Your task to perform on an android device: Search for "logitech g933" on amazon.com, select the first entry, and add it to the cart. Image 0: 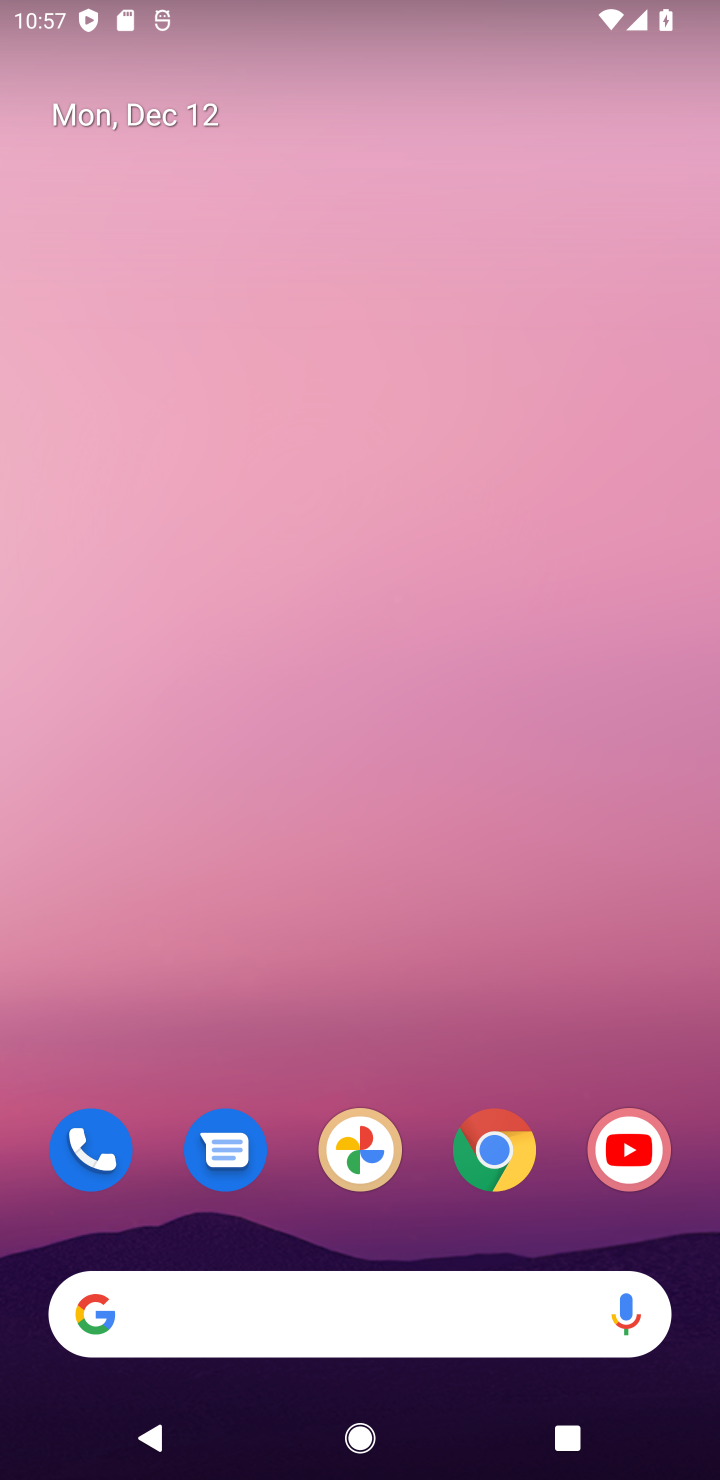
Step 0: click (496, 1163)
Your task to perform on an android device: Search for "logitech g933" on amazon.com, select the first entry, and add it to the cart. Image 1: 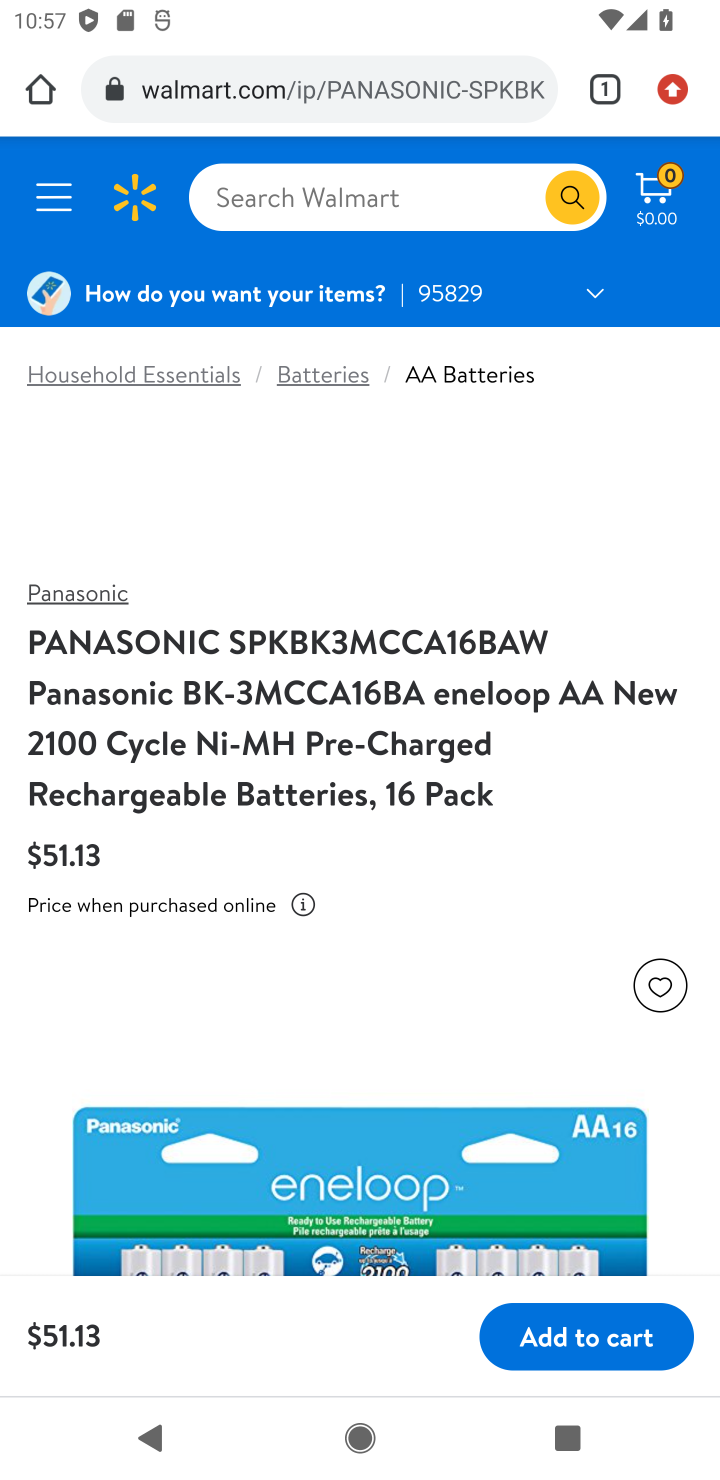
Step 1: click (258, 98)
Your task to perform on an android device: Search for "logitech g933" on amazon.com, select the first entry, and add it to the cart. Image 2: 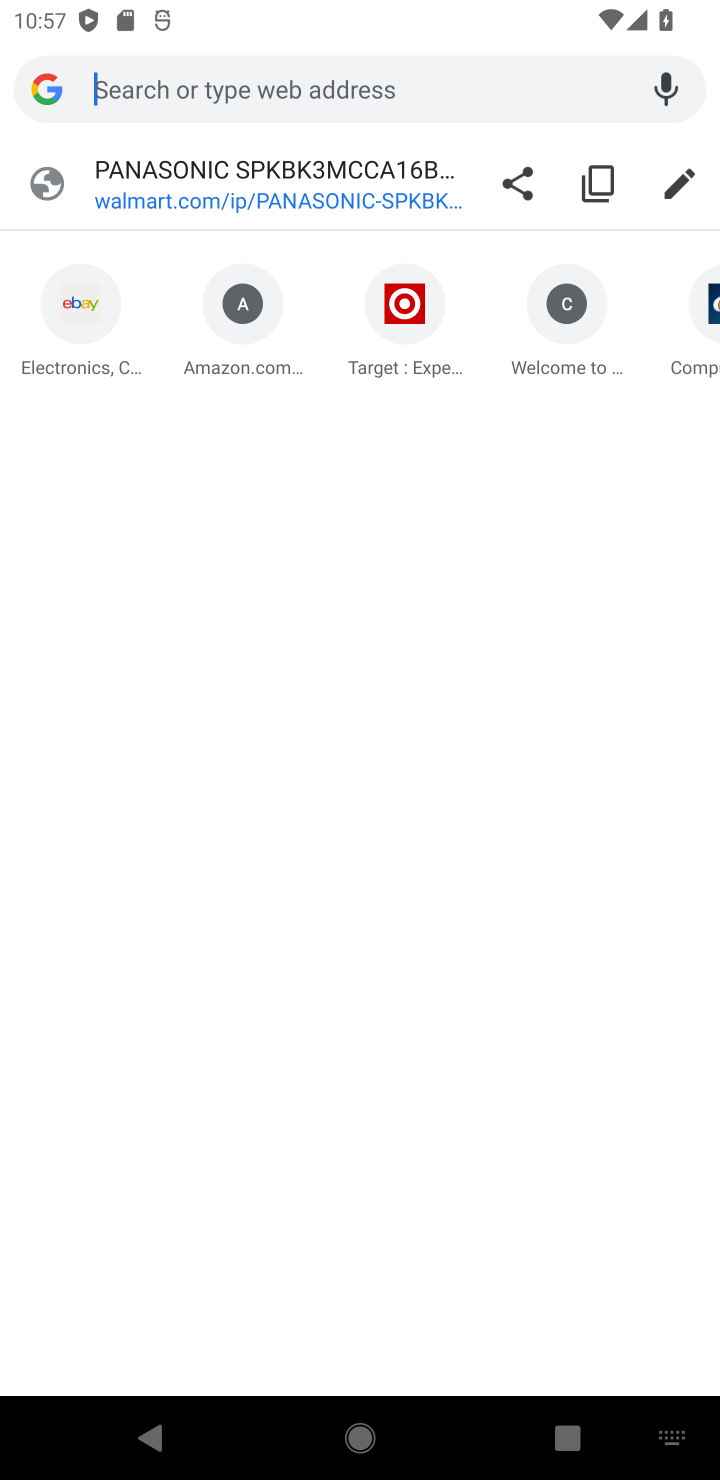
Step 2: click (232, 318)
Your task to perform on an android device: Search for "logitech g933" on amazon.com, select the first entry, and add it to the cart. Image 3: 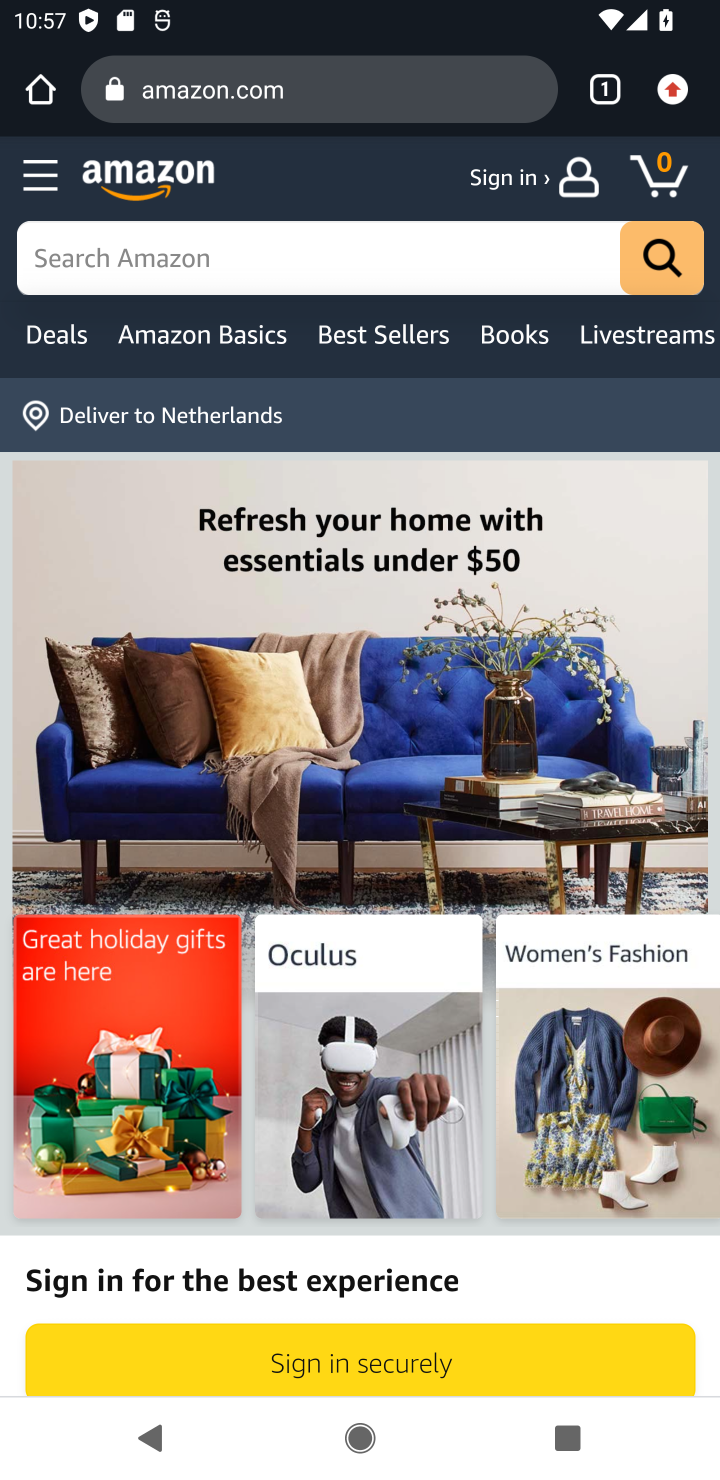
Step 3: click (85, 258)
Your task to perform on an android device: Search for "logitech g933" on amazon.com, select the first entry, and add it to the cart. Image 4: 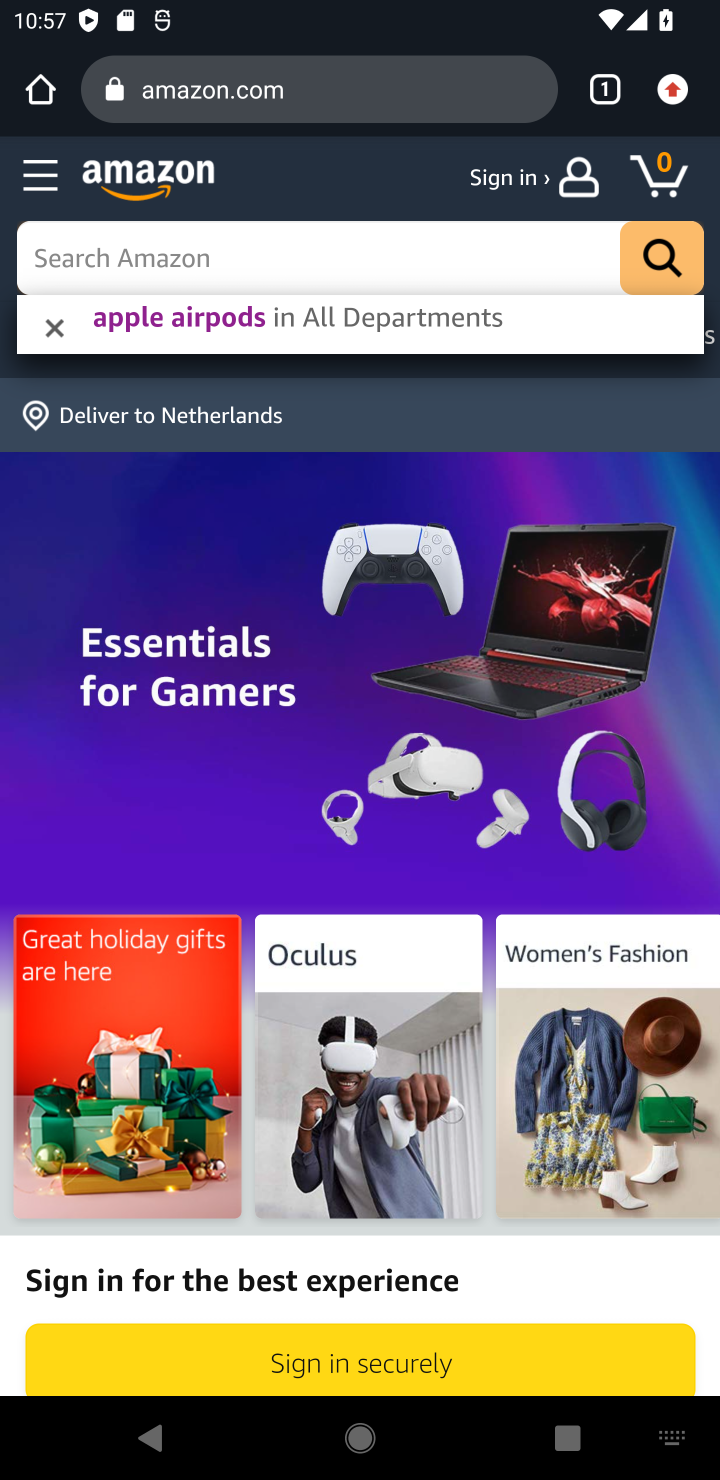
Step 4: type "logitech g933"
Your task to perform on an android device: Search for "logitech g933" on amazon.com, select the first entry, and add it to the cart. Image 5: 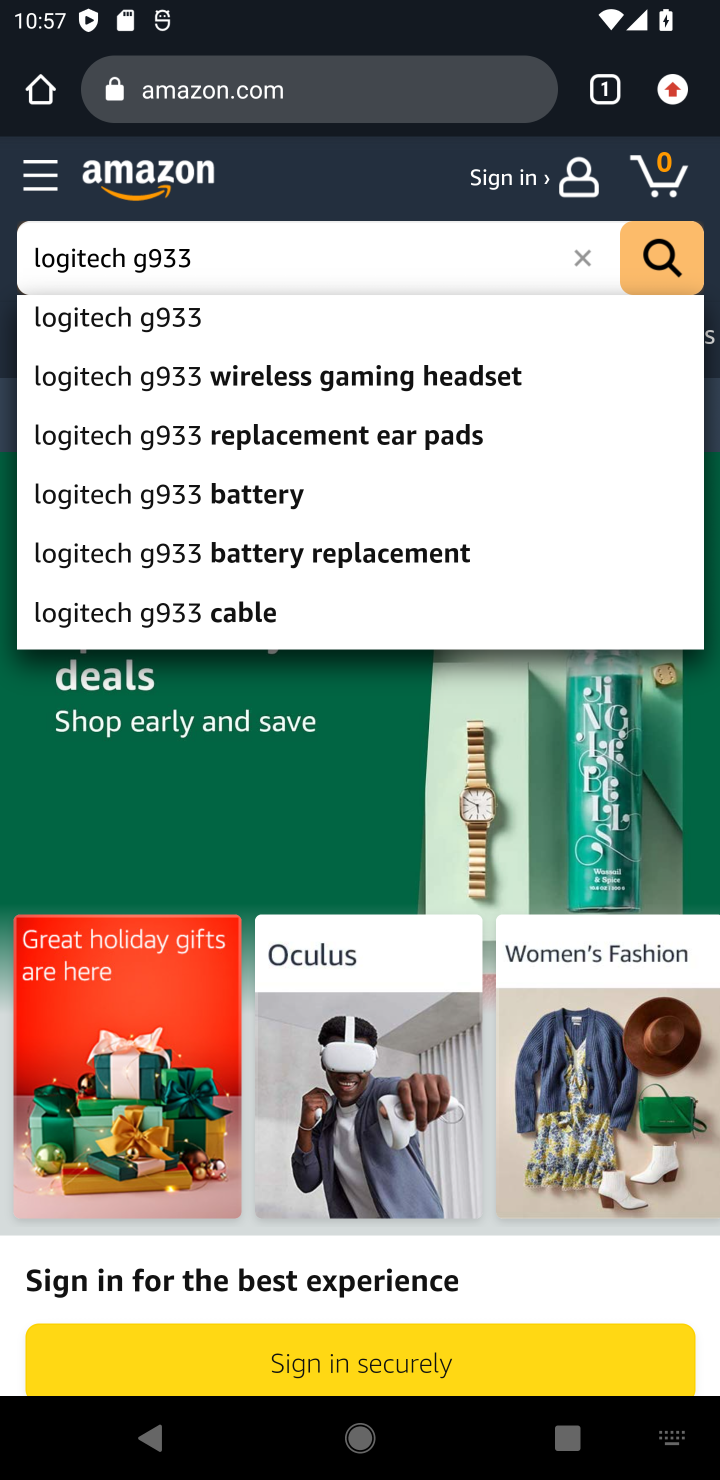
Step 5: click (79, 325)
Your task to perform on an android device: Search for "logitech g933" on amazon.com, select the first entry, and add it to the cart. Image 6: 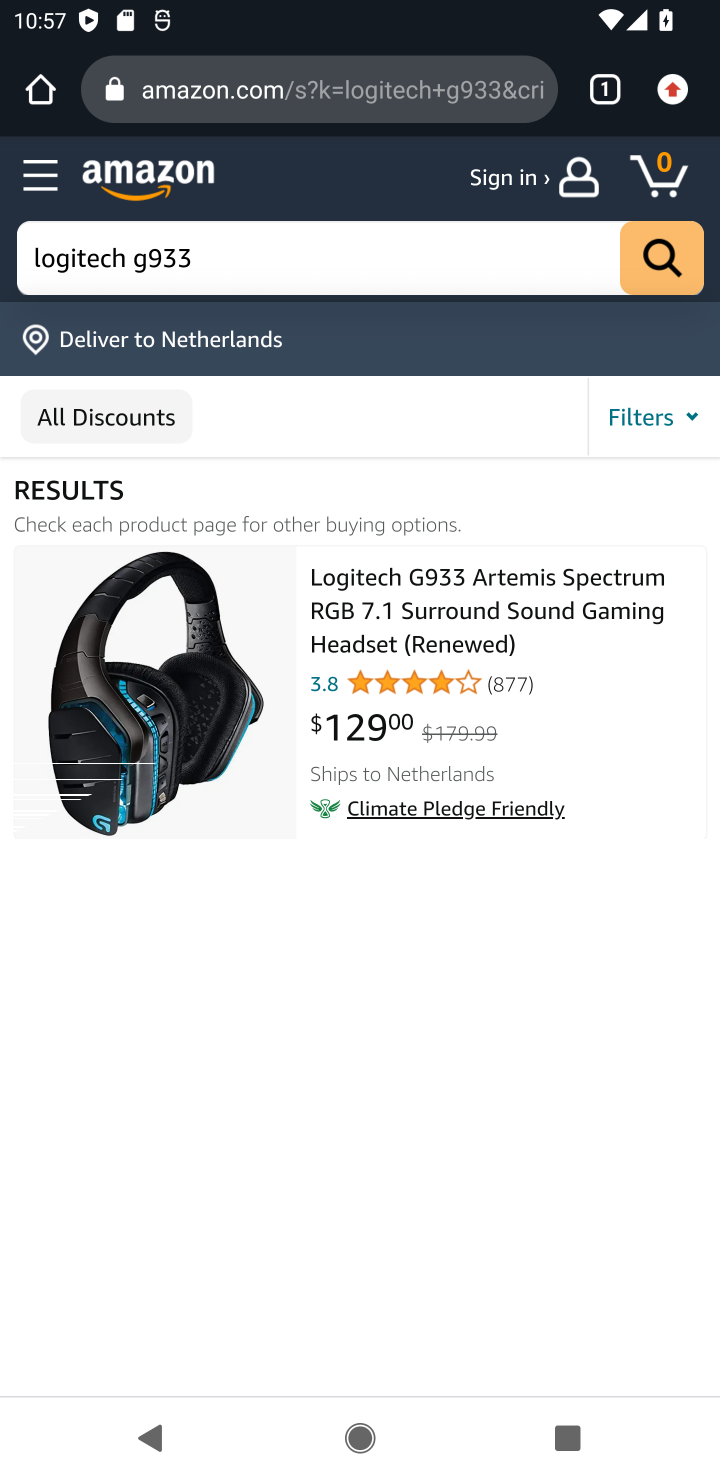
Step 6: click (463, 635)
Your task to perform on an android device: Search for "logitech g933" on amazon.com, select the first entry, and add it to the cart. Image 7: 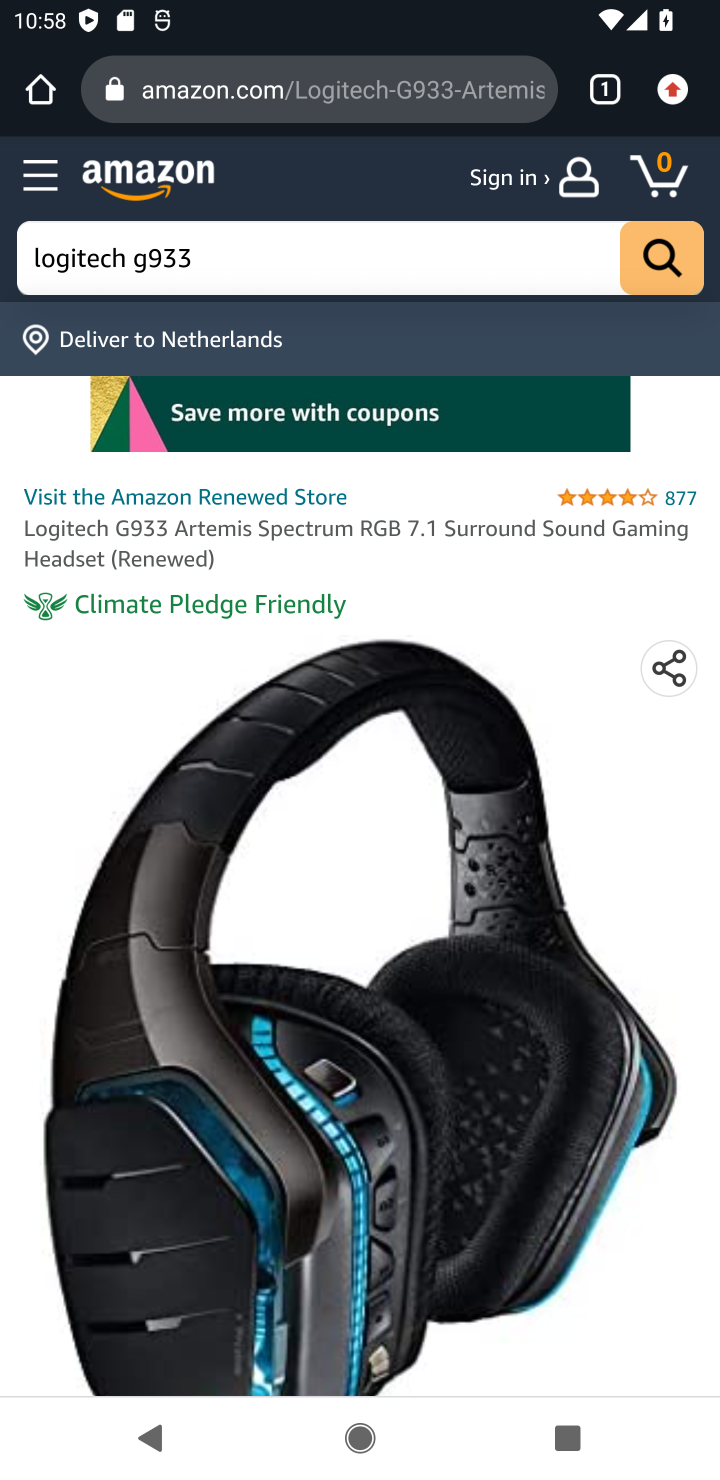
Step 7: drag from (392, 832) to (367, 391)
Your task to perform on an android device: Search for "logitech g933" on amazon.com, select the first entry, and add it to the cart. Image 8: 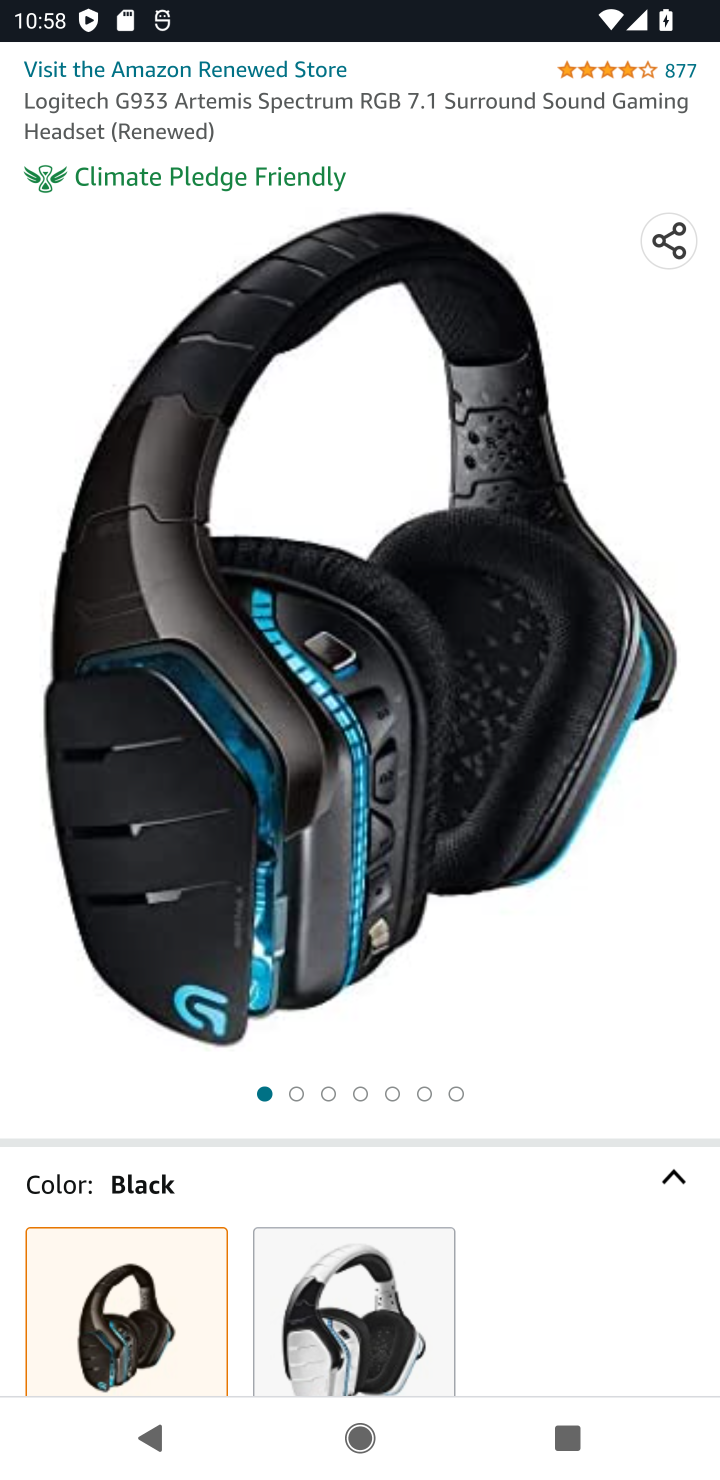
Step 8: drag from (448, 816) to (425, 489)
Your task to perform on an android device: Search for "logitech g933" on amazon.com, select the first entry, and add it to the cart. Image 9: 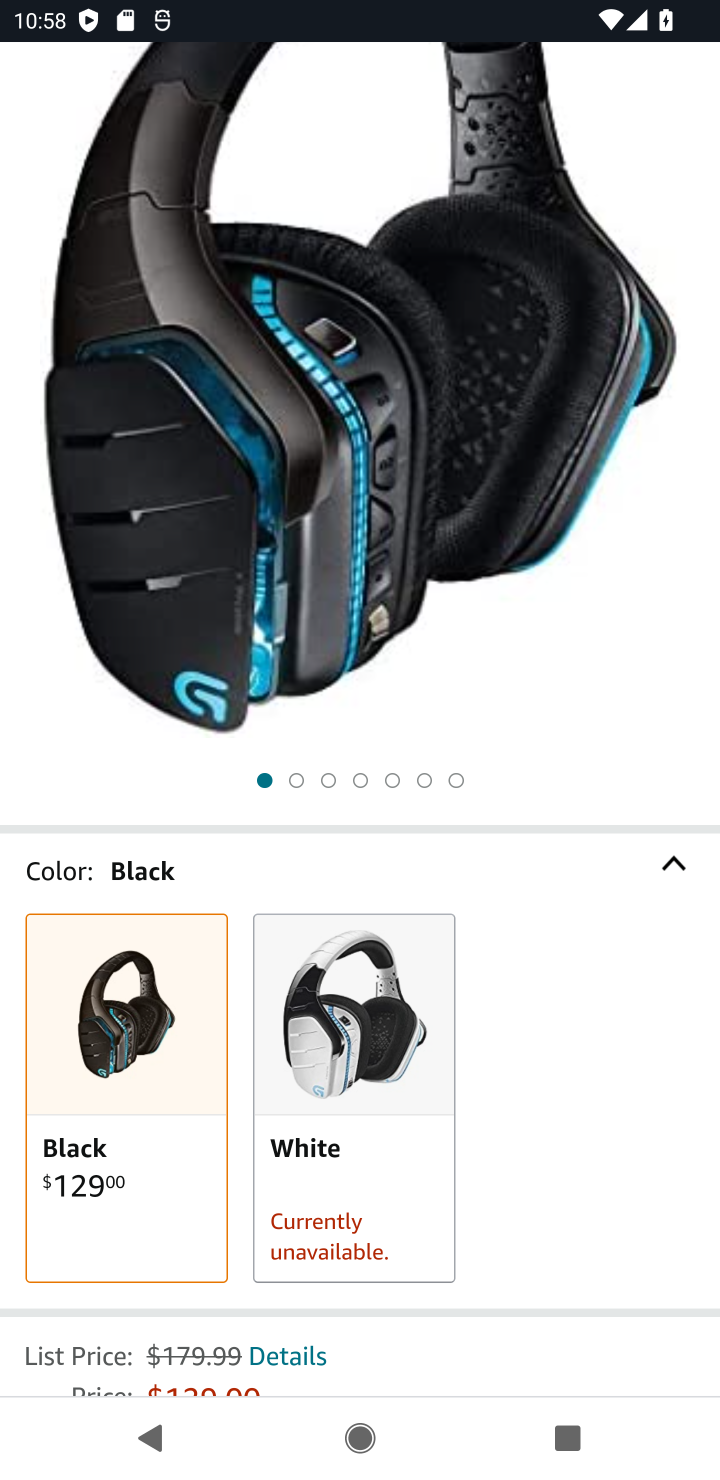
Step 9: drag from (510, 1226) to (481, 493)
Your task to perform on an android device: Search for "logitech g933" on amazon.com, select the first entry, and add it to the cart. Image 10: 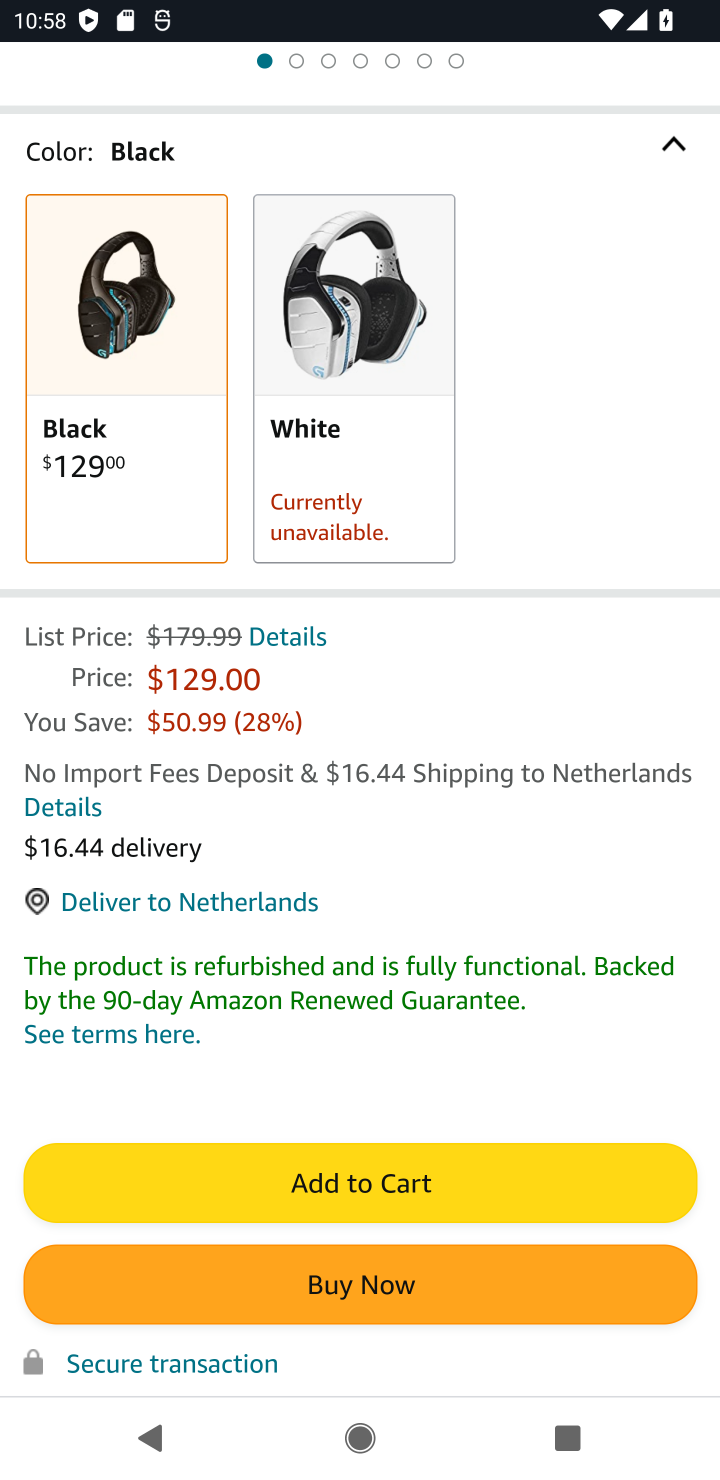
Step 10: click (345, 1179)
Your task to perform on an android device: Search for "logitech g933" on amazon.com, select the first entry, and add it to the cart. Image 11: 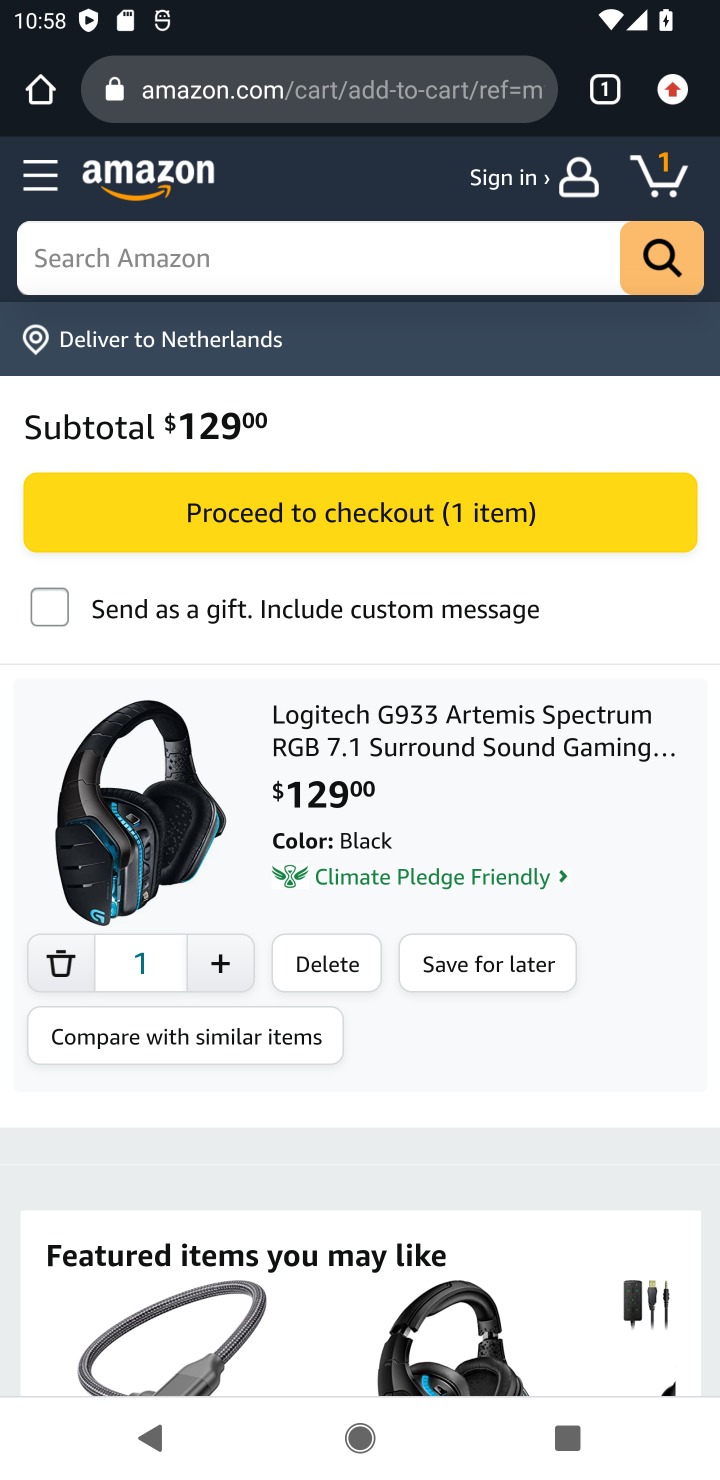
Step 11: task complete